Your task to perform on an android device: move an email to a new category in the gmail app Image 0: 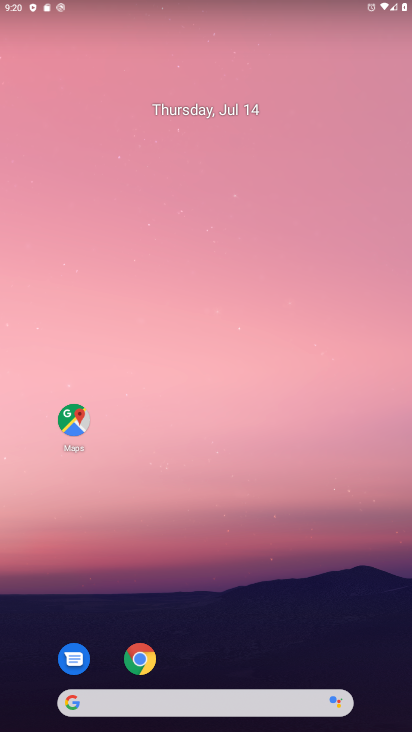
Step 0: drag from (314, 658) to (288, 89)
Your task to perform on an android device: move an email to a new category in the gmail app Image 1: 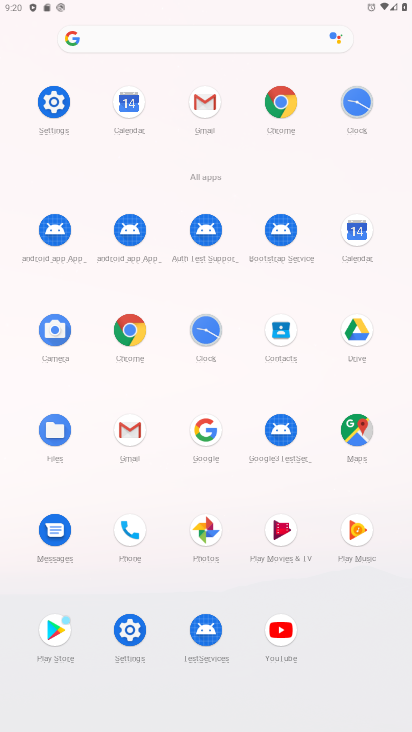
Step 1: click (132, 429)
Your task to perform on an android device: move an email to a new category in the gmail app Image 2: 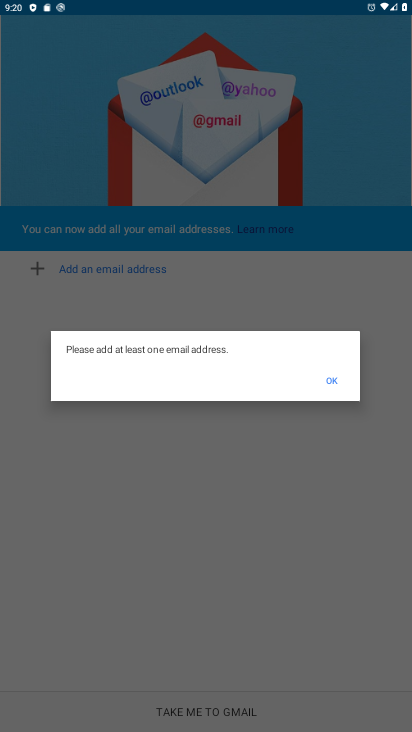
Step 2: task complete